Your task to perform on an android device: Open the calendar and show me this week's events Image 0: 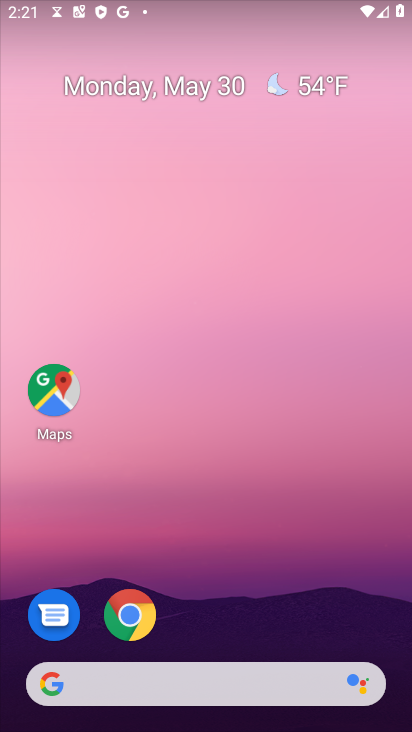
Step 0: drag from (299, 610) to (299, 62)
Your task to perform on an android device: Open the calendar and show me this week's events Image 1: 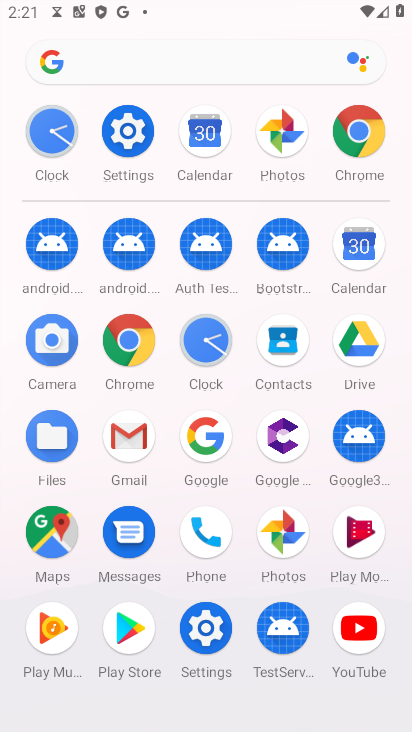
Step 1: click (362, 248)
Your task to perform on an android device: Open the calendar and show me this week's events Image 2: 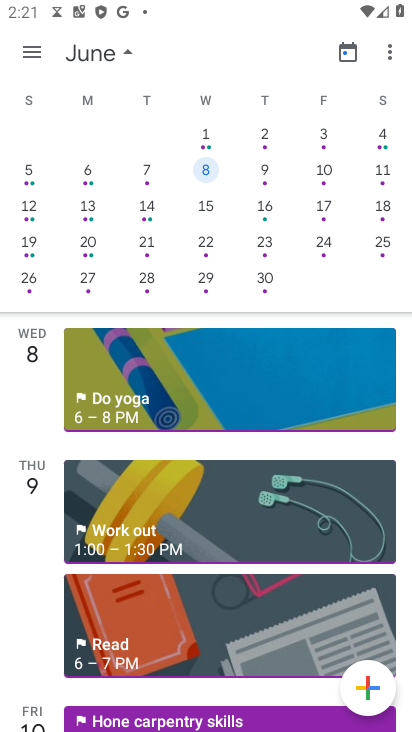
Step 2: click (211, 191)
Your task to perform on an android device: Open the calendar and show me this week's events Image 3: 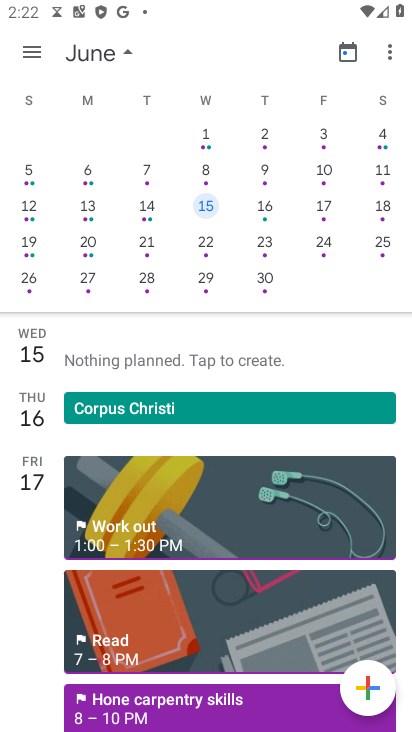
Step 3: task complete